Your task to perform on an android device: open app "Google Find My Device" (install if not already installed) Image 0: 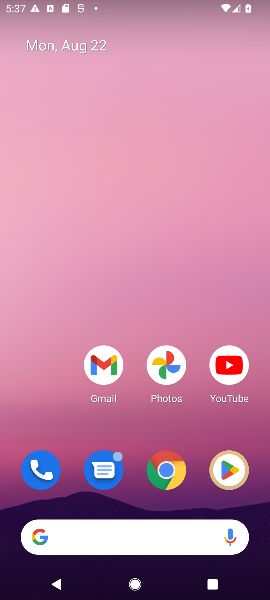
Step 0: drag from (142, 522) to (144, 155)
Your task to perform on an android device: open app "Google Find My Device" (install if not already installed) Image 1: 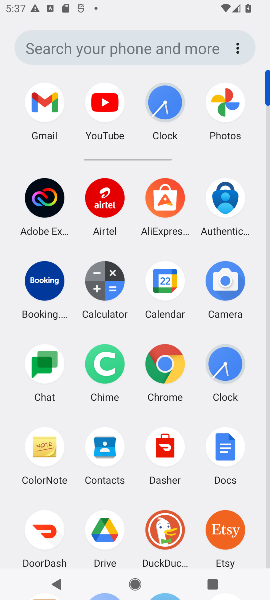
Step 1: drag from (185, 437) to (215, 80)
Your task to perform on an android device: open app "Google Find My Device" (install if not already installed) Image 2: 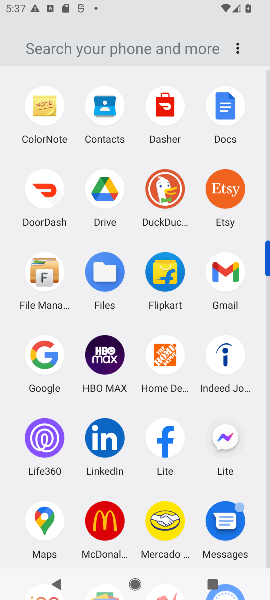
Step 2: drag from (116, 482) to (177, 122)
Your task to perform on an android device: open app "Google Find My Device" (install if not already installed) Image 3: 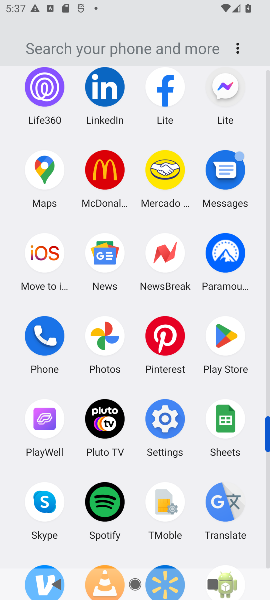
Step 3: click (215, 339)
Your task to perform on an android device: open app "Google Find My Device" (install if not already installed) Image 4: 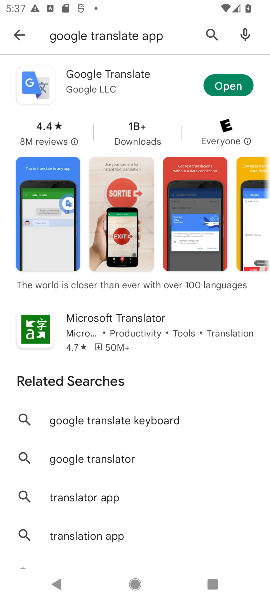
Step 4: click (15, 36)
Your task to perform on an android device: open app "Google Find My Device" (install if not already installed) Image 5: 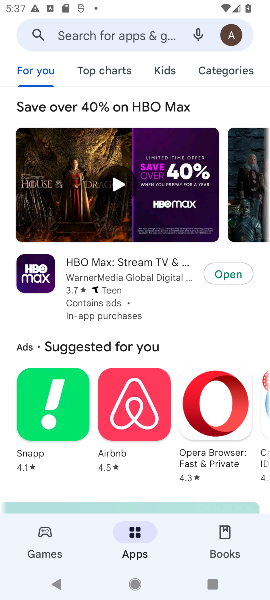
Step 5: click (140, 25)
Your task to perform on an android device: open app "Google Find My Device" (install if not already installed) Image 6: 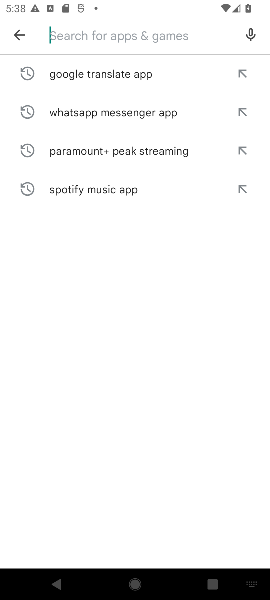
Step 6: type "Google Find My Device "
Your task to perform on an android device: open app "Google Find My Device" (install if not already installed) Image 7: 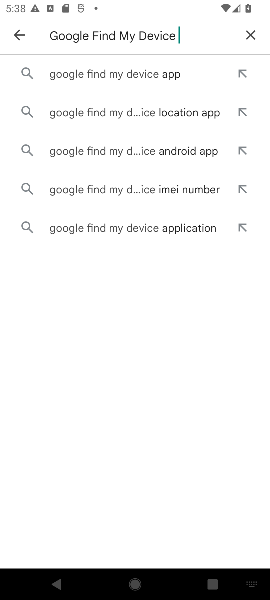
Step 7: click (126, 66)
Your task to perform on an android device: open app "Google Find My Device" (install if not already installed) Image 8: 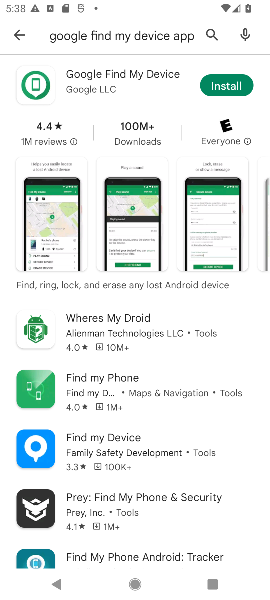
Step 8: click (207, 81)
Your task to perform on an android device: open app "Google Find My Device" (install if not already installed) Image 9: 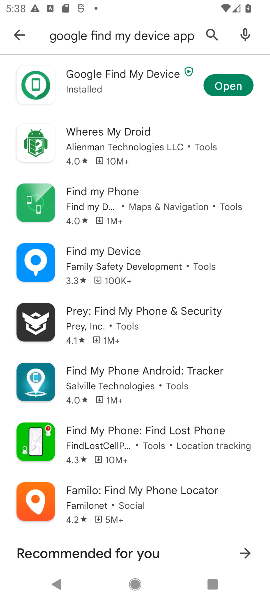
Step 9: click (234, 87)
Your task to perform on an android device: open app "Google Find My Device" (install if not already installed) Image 10: 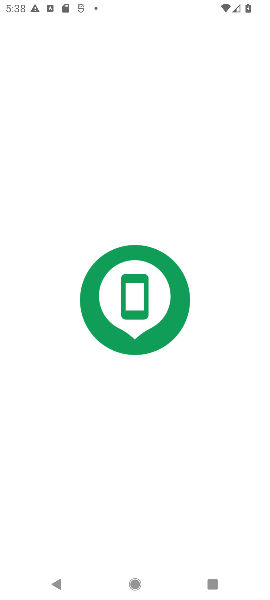
Step 10: task complete